Your task to perform on an android device: visit the assistant section in the google photos Image 0: 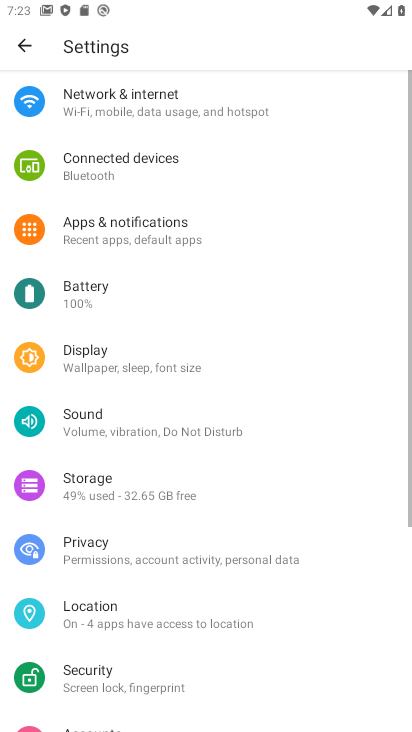
Step 0: press home button
Your task to perform on an android device: visit the assistant section in the google photos Image 1: 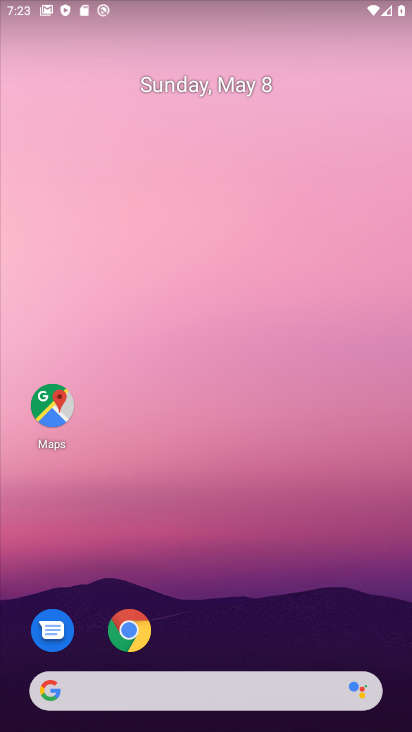
Step 1: drag from (252, 621) to (227, 239)
Your task to perform on an android device: visit the assistant section in the google photos Image 2: 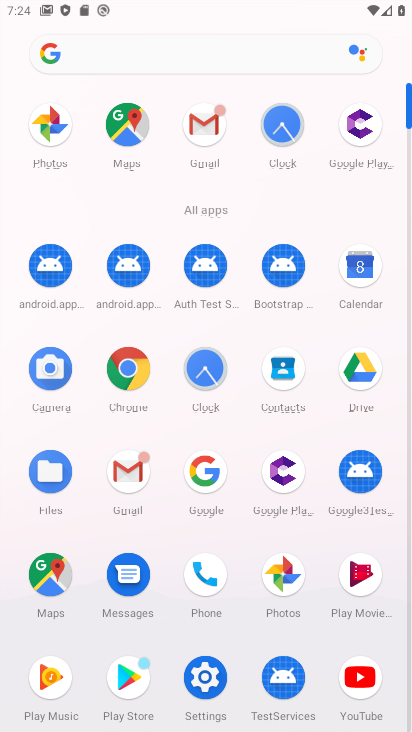
Step 2: click (53, 130)
Your task to perform on an android device: visit the assistant section in the google photos Image 3: 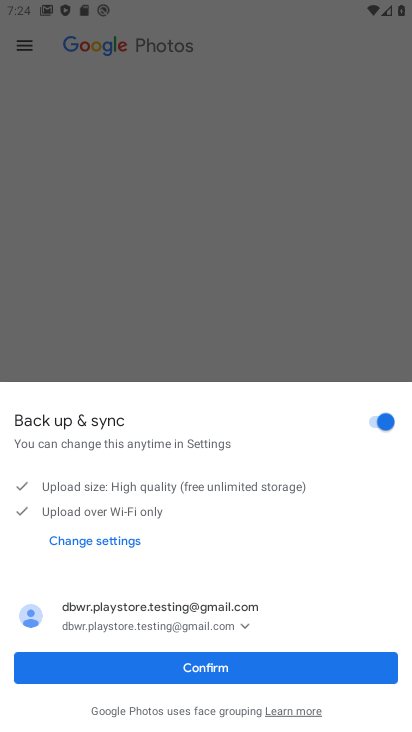
Step 3: click (309, 669)
Your task to perform on an android device: visit the assistant section in the google photos Image 4: 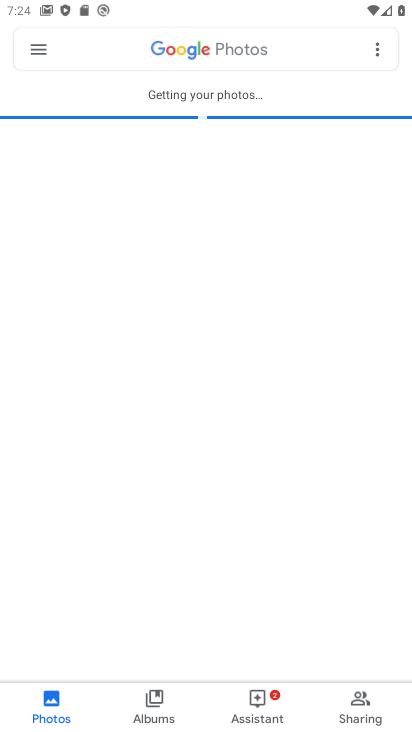
Step 4: click (265, 701)
Your task to perform on an android device: visit the assistant section in the google photos Image 5: 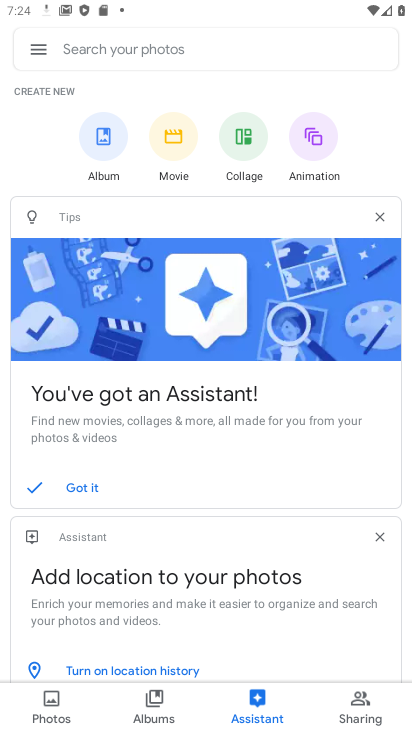
Step 5: task complete